Your task to perform on an android device: add a label to a message in the gmail app Image 0: 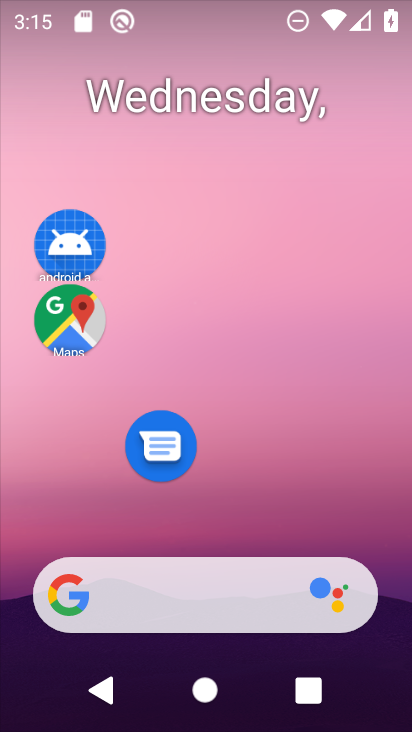
Step 0: drag from (330, 462) to (260, 139)
Your task to perform on an android device: add a label to a message in the gmail app Image 1: 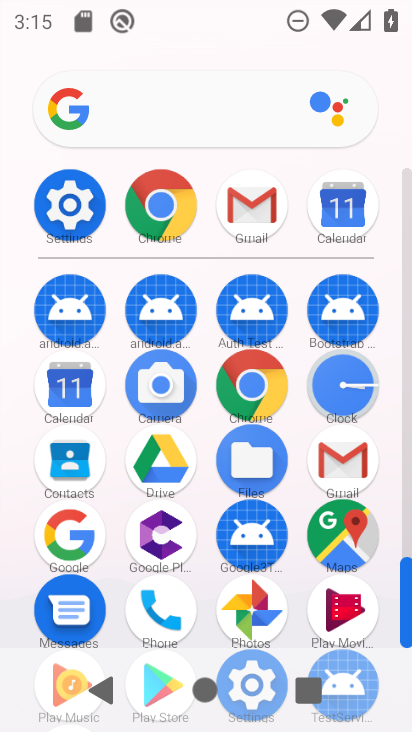
Step 1: click (328, 459)
Your task to perform on an android device: add a label to a message in the gmail app Image 2: 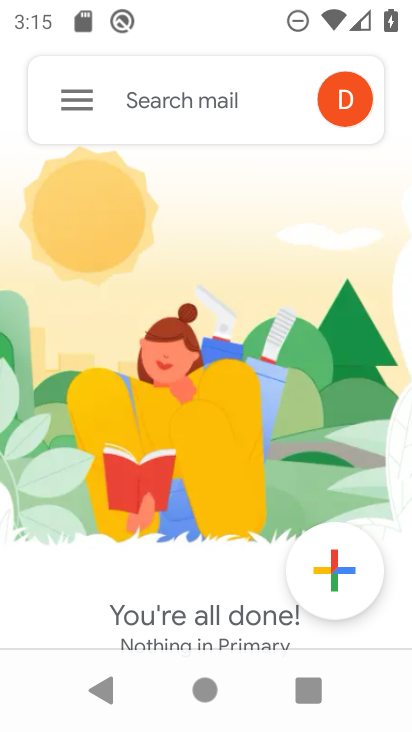
Step 2: click (79, 127)
Your task to perform on an android device: add a label to a message in the gmail app Image 3: 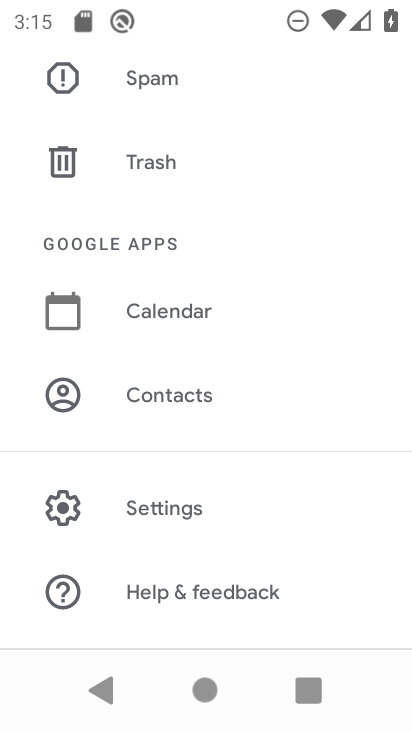
Step 3: drag from (164, 156) to (190, 272)
Your task to perform on an android device: add a label to a message in the gmail app Image 4: 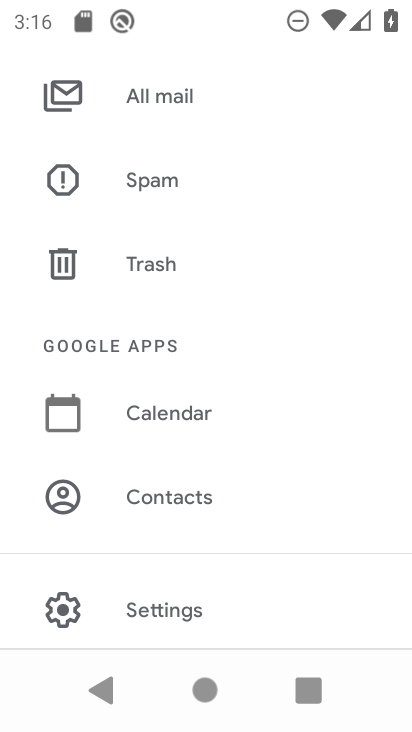
Step 4: click (201, 112)
Your task to perform on an android device: add a label to a message in the gmail app Image 5: 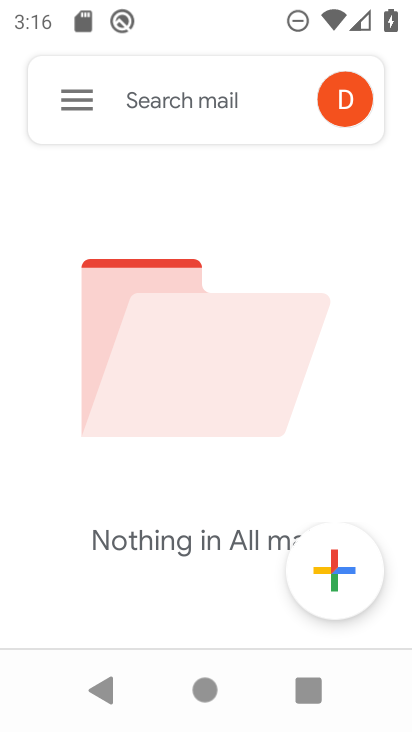
Step 5: task complete